Your task to perform on an android device: check google app version Image 0: 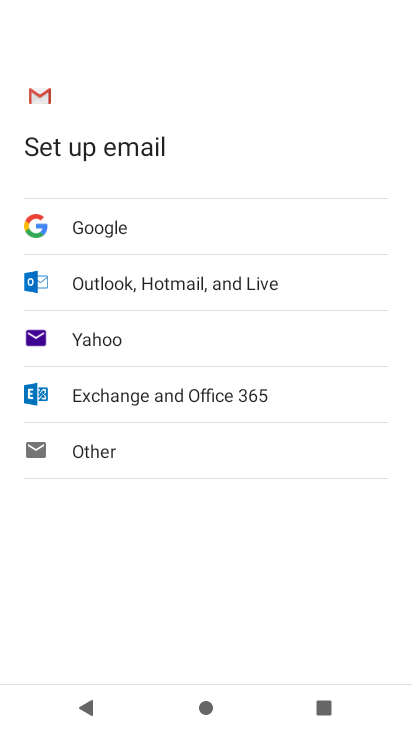
Step 0: press home button
Your task to perform on an android device: check google app version Image 1: 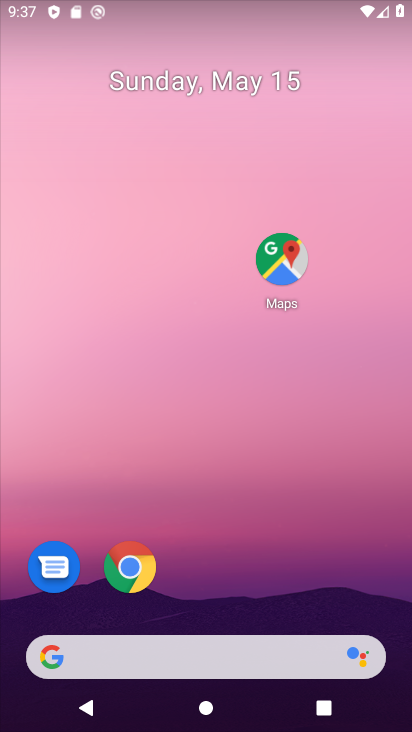
Step 1: drag from (193, 585) to (204, 43)
Your task to perform on an android device: check google app version Image 2: 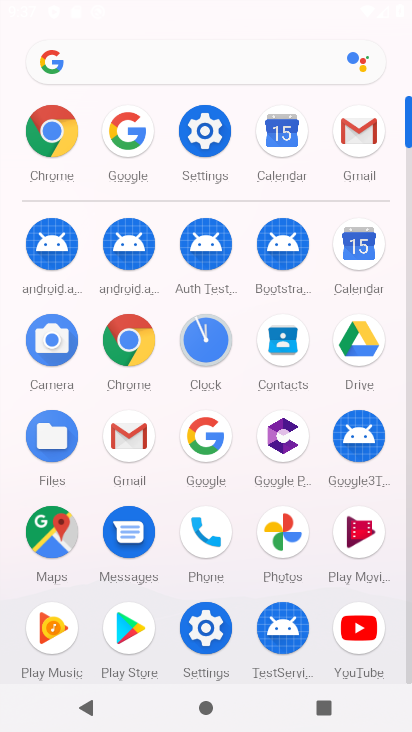
Step 2: click (196, 428)
Your task to perform on an android device: check google app version Image 3: 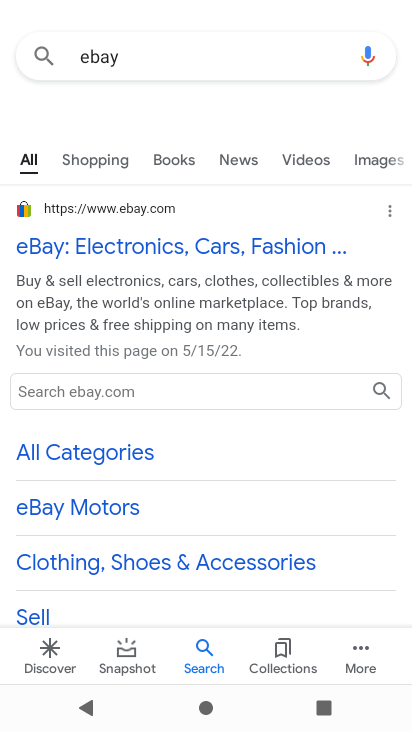
Step 3: click (354, 660)
Your task to perform on an android device: check google app version Image 4: 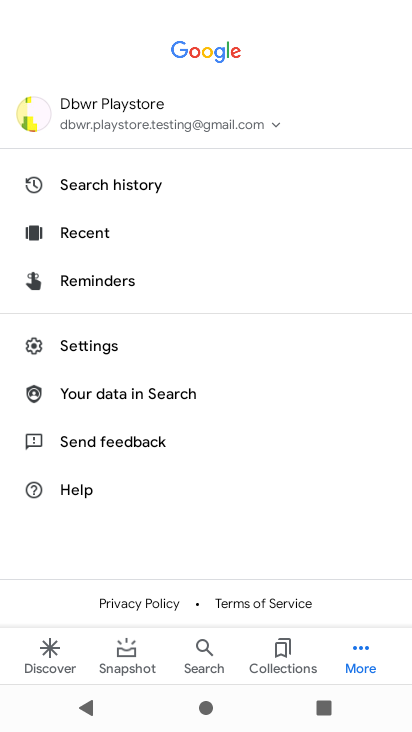
Step 4: click (85, 348)
Your task to perform on an android device: check google app version Image 5: 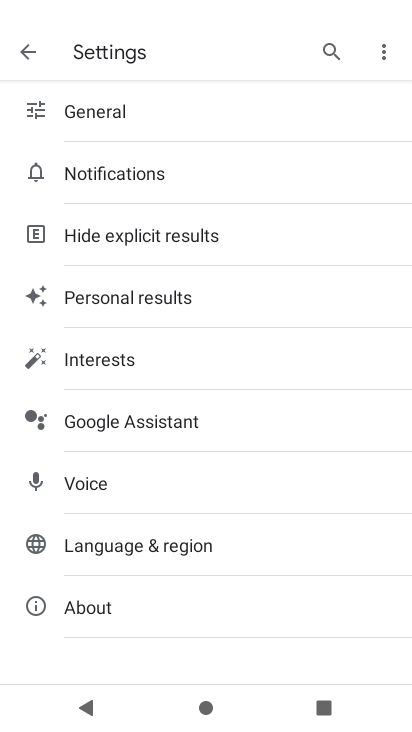
Step 5: click (133, 596)
Your task to perform on an android device: check google app version Image 6: 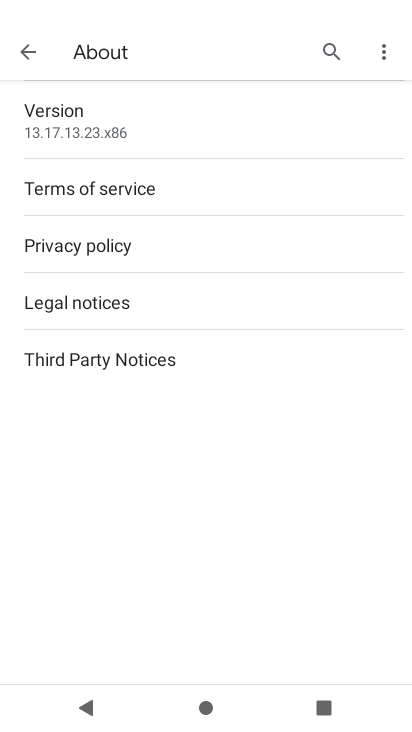
Step 6: click (148, 132)
Your task to perform on an android device: check google app version Image 7: 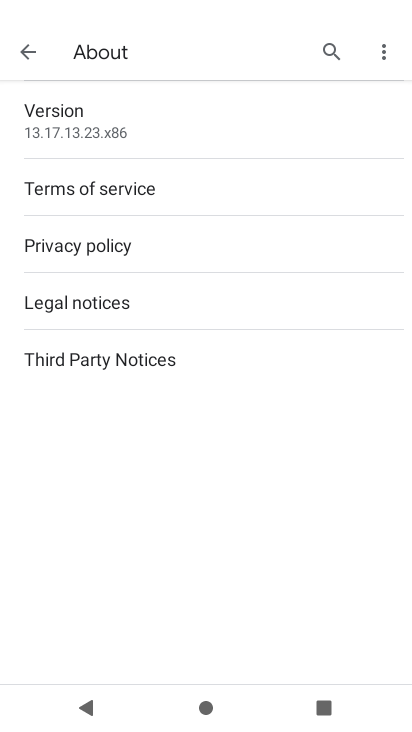
Step 7: task complete